Your task to perform on an android device: Open Youtube and go to "Your channel" Image 0: 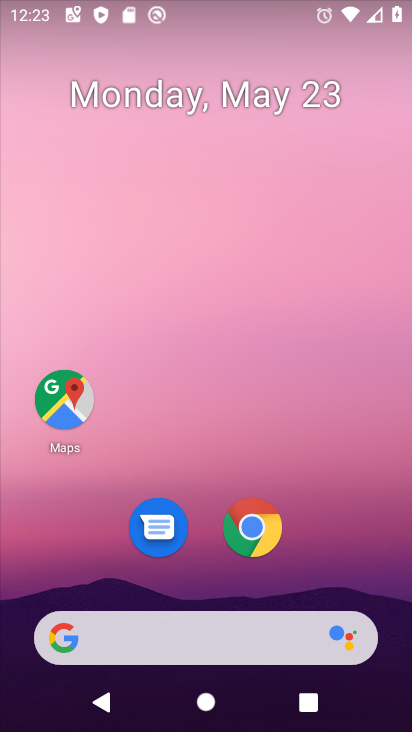
Step 0: drag from (408, 596) to (180, 68)
Your task to perform on an android device: Open Youtube and go to "Your channel" Image 1: 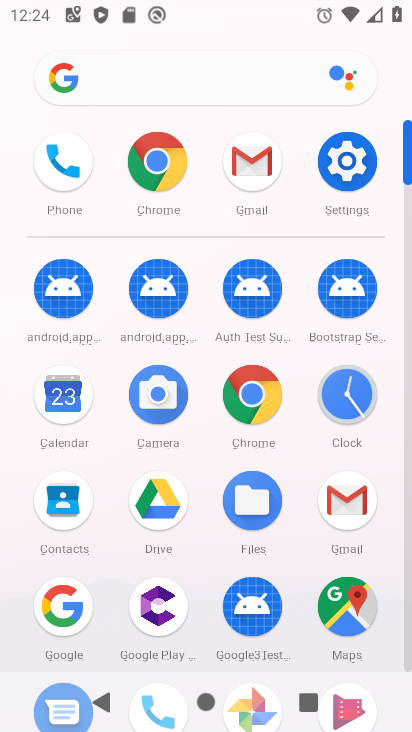
Step 1: click (406, 656)
Your task to perform on an android device: Open Youtube and go to "Your channel" Image 2: 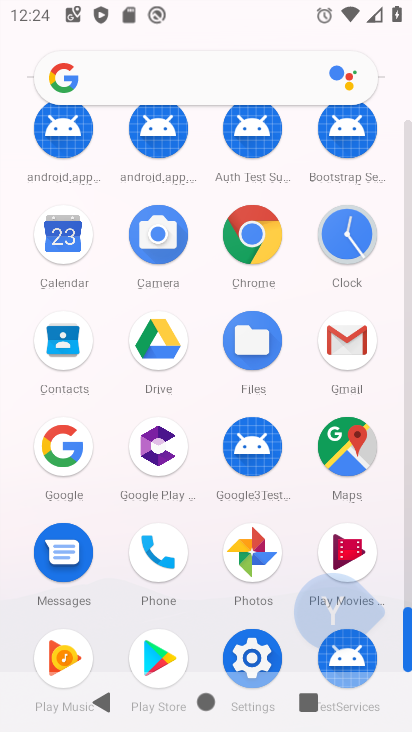
Step 2: click (406, 656)
Your task to perform on an android device: Open Youtube and go to "Your channel" Image 3: 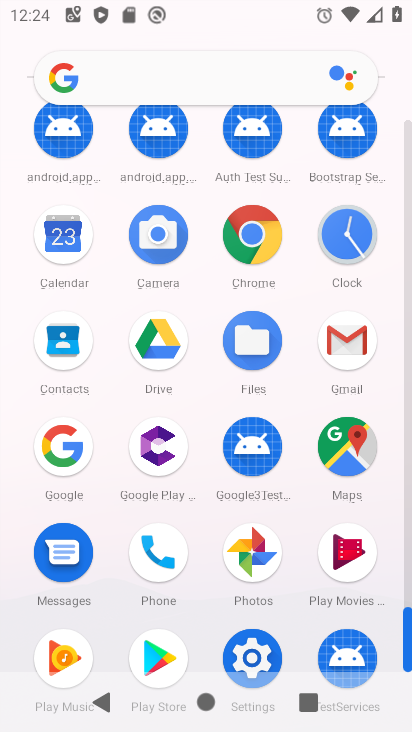
Step 3: drag from (410, 630) to (386, 702)
Your task to perform on an android device: Open Youtube and go to "Your channel" Image 4: 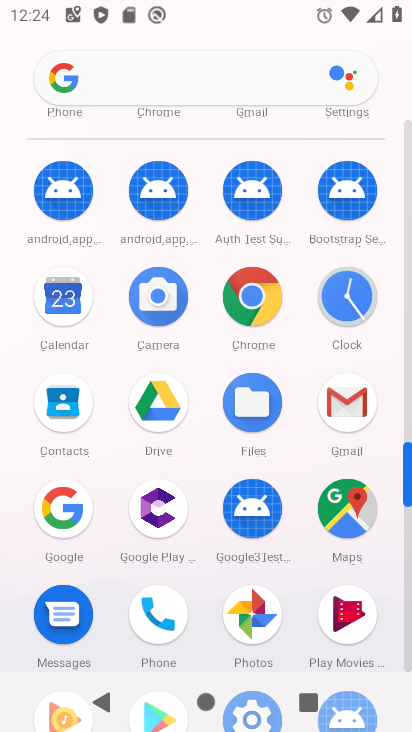
Step 4: click (407, 618)
Your task to perform on an android device: Open Youtube and go to "Your channel" Image 5: 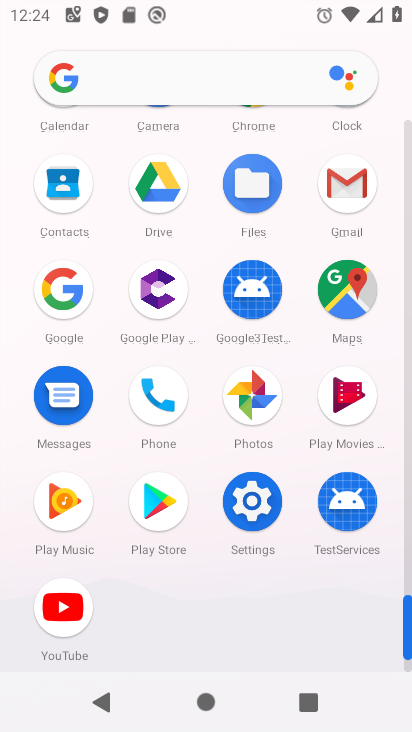
Step 5: click (83, 629)
Your task to perform on an android device: Open Youtube and go to "Your channel" Image 6: 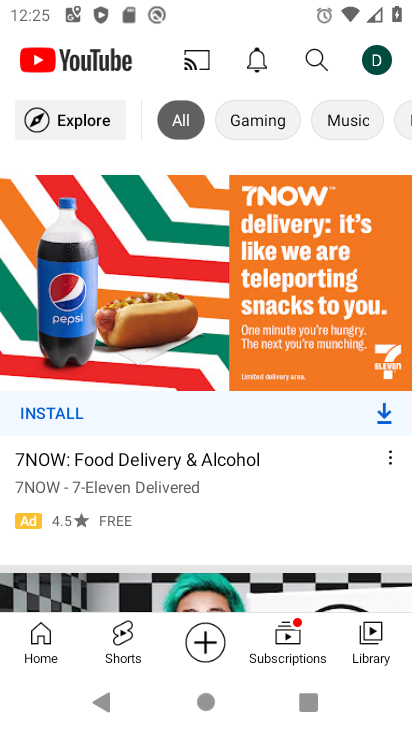
Step 6: task complete